Your task to perform on an android device: toggle notifications settings in the gmail app Image 0: 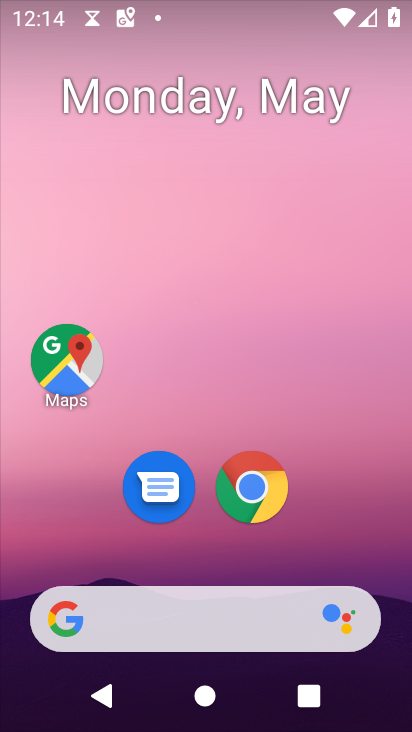
Step 0: drag from (336, 548) to (330, 12)
Your task to perform on an android device: toggle notifications settings in the gmail app Image 1: 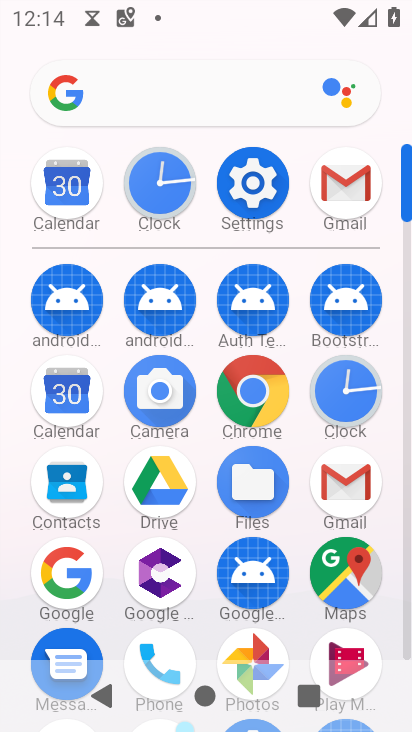
Step 1: click (340, 192)
Your task to perform on an android device: toggle notifications settings in the gmail app Image 2: 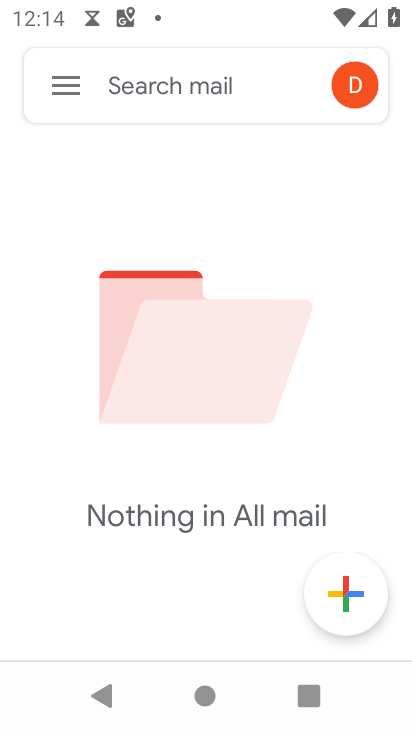
Step 2: click (79, 94)
Your task to perform on an android device: toggle notifications settings in the gmail app Image 3: 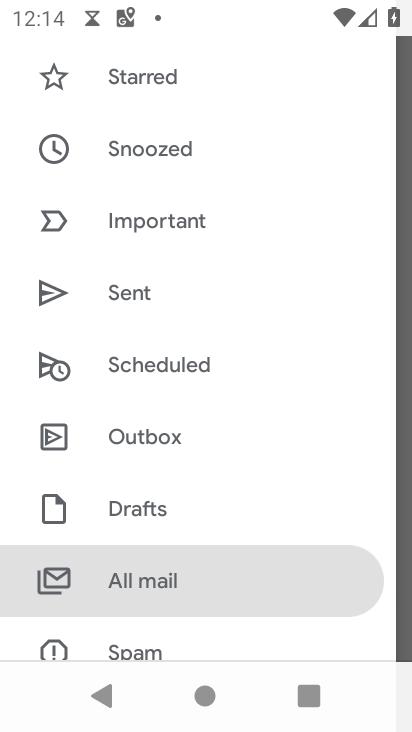
Step 3: drag from (138, 579) to (211, 113)
Your task to perform on an android device: toggle notifications settings in the gmail app Image 4: 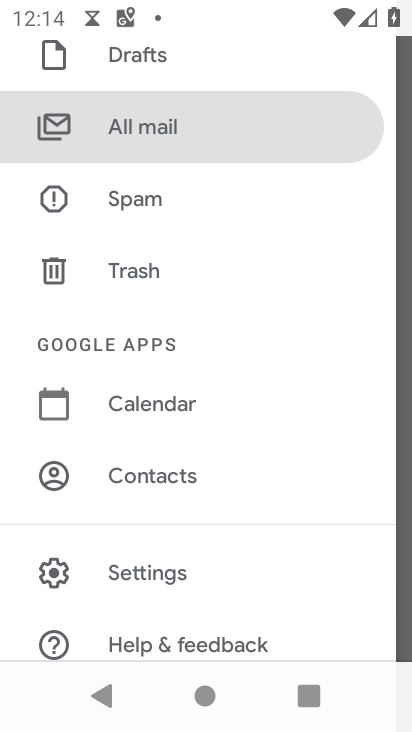
Step 4: click (166, 576)
Your task to perform on an android device: toggle notifications settings in the gmail app Image 5: 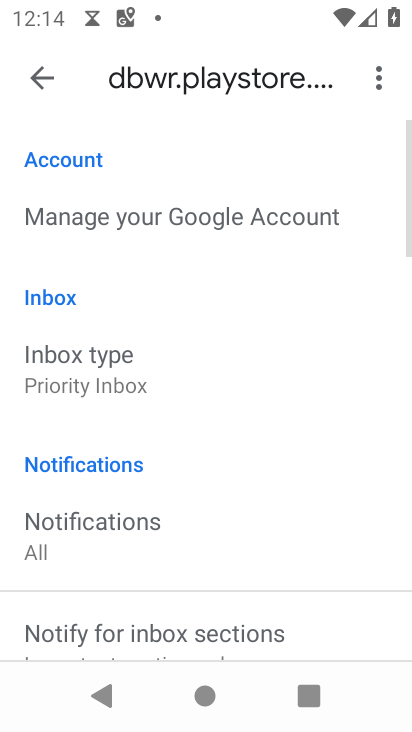
Step 5: drag from (167, 530) to (230, 101)
Your task to perform on an android device: toggle notifications settings in the gmail app Image 6: 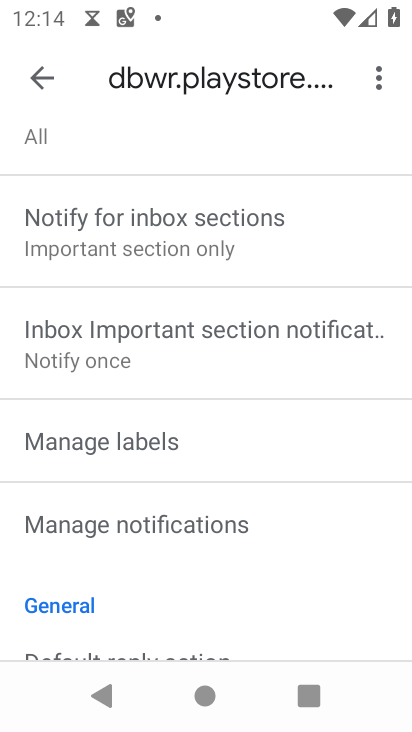
Step 6: click (188, 517)
Your task to perform on an android device: toggle notifications settings in the gmail app Image 7: 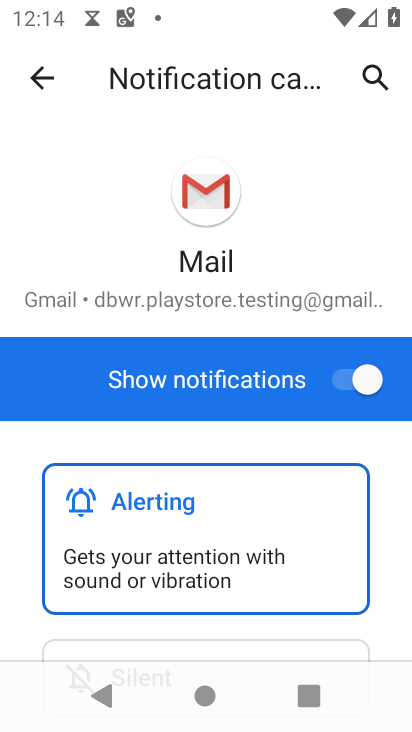
Step 7: click (346, 377)
Your task to perform on an android device: toggle notifications settings in the gmail app Image 8: 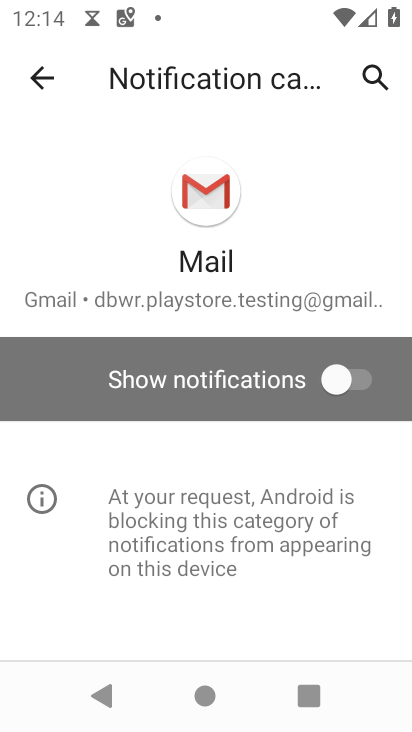
Step 8: task complete